Your task to perform on an android device: Empty the shopping cart on costco. Image 0: 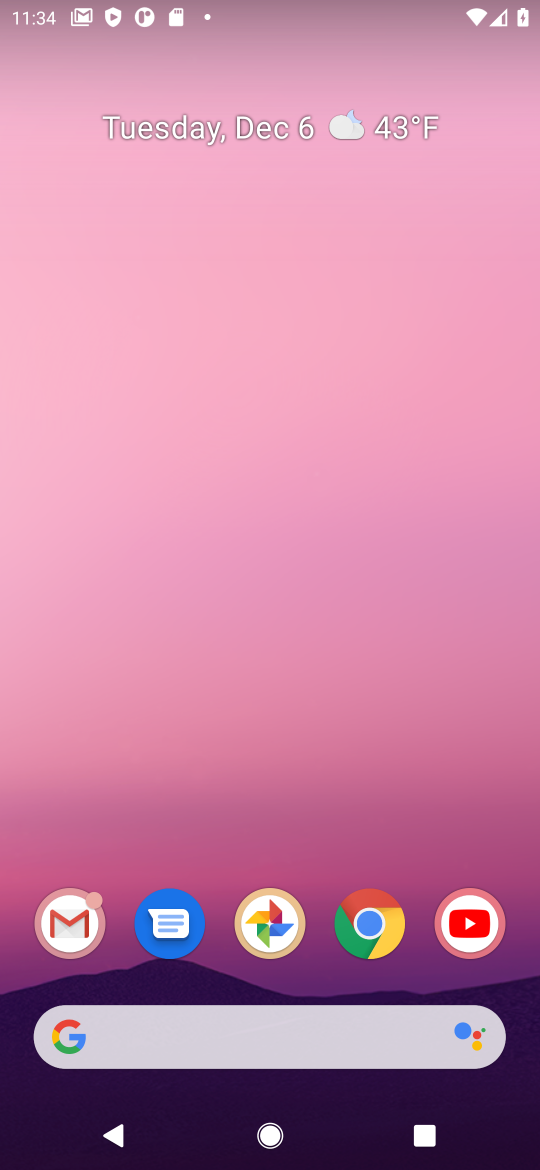
Step 0: click (373, 919)
Your task to perform on an android device: Empty the shopping cart on costco. Image 1: 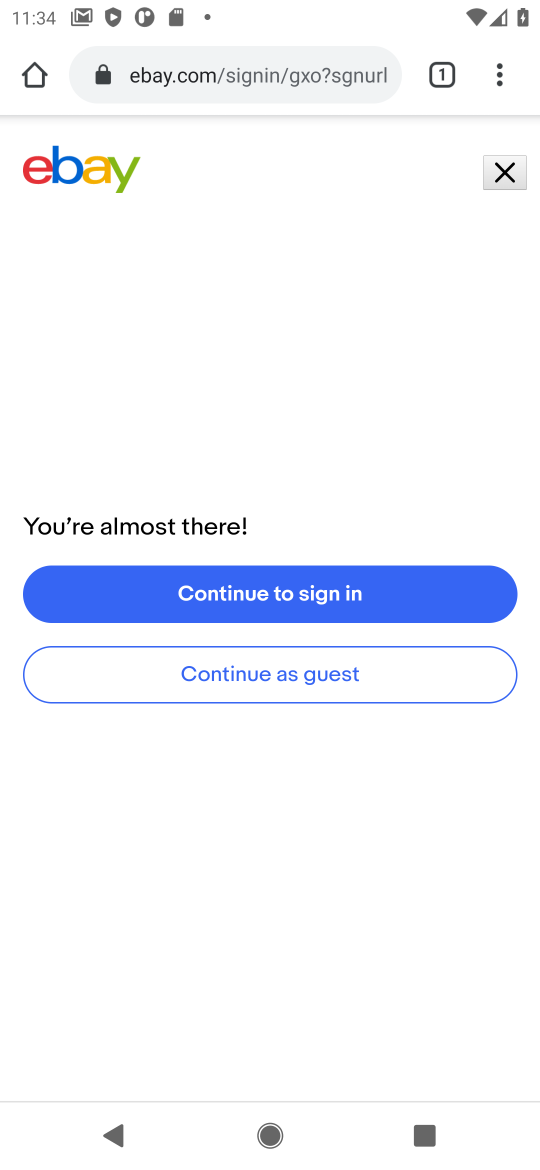
Step 1: click (300, 55)
Your task to perform on an android device: Empty the shopping cart on costco. Image 2: 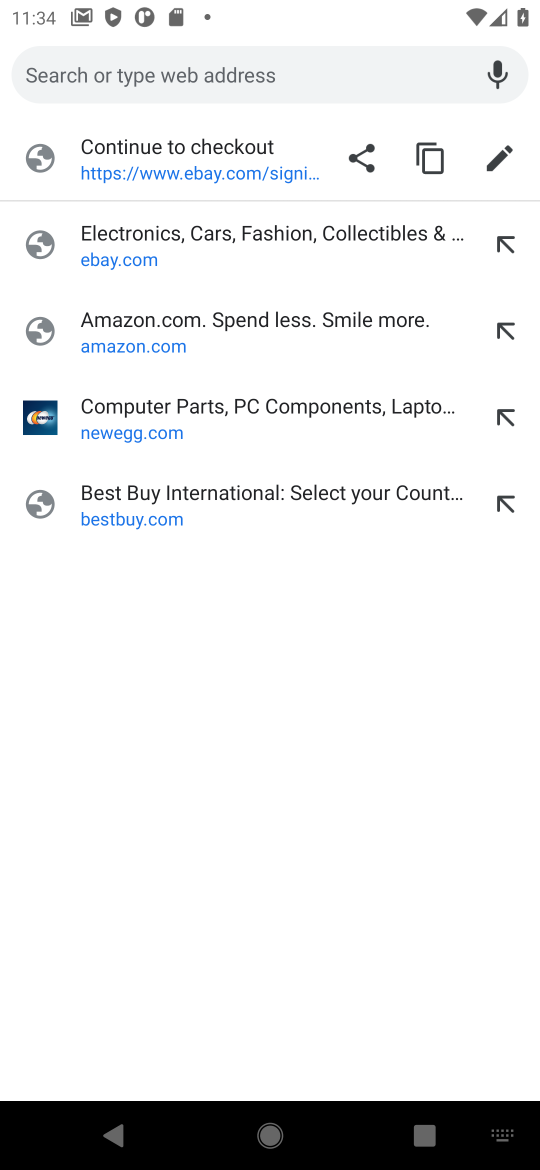
Step 2: type "COSTCO"
Your task to perform on an android device: Empty the shopping cart on costco. Image 3: 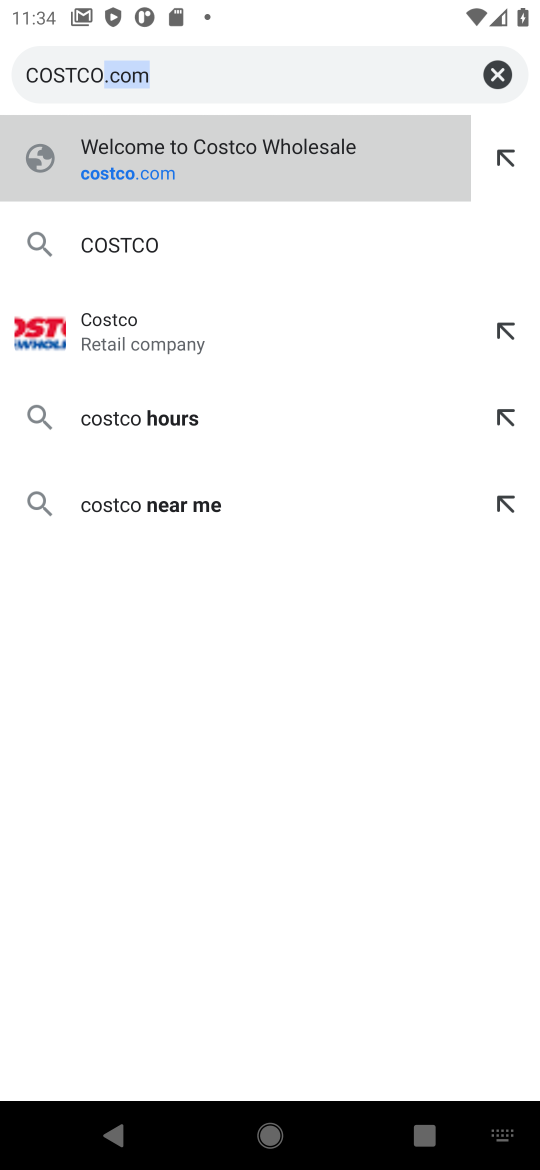
Step 3: click (122, 171)
Your task to perform on an android device: Empty the shopping cart on costco. Image 4: 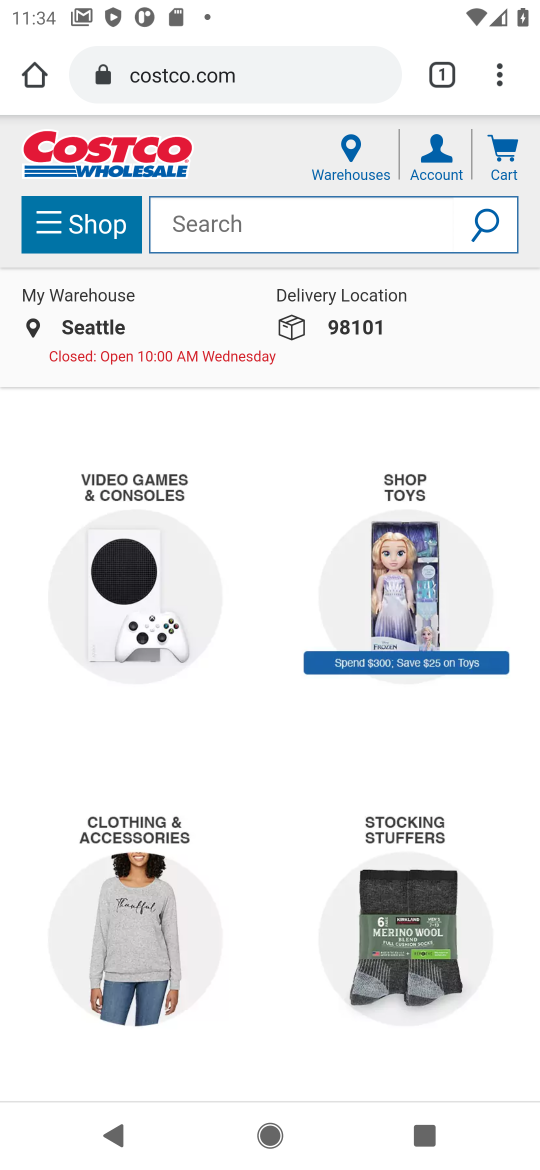
Step 4: click (501, 161)
Your task to perform on an android device: Empty the shopping cart on costco. Image 5: 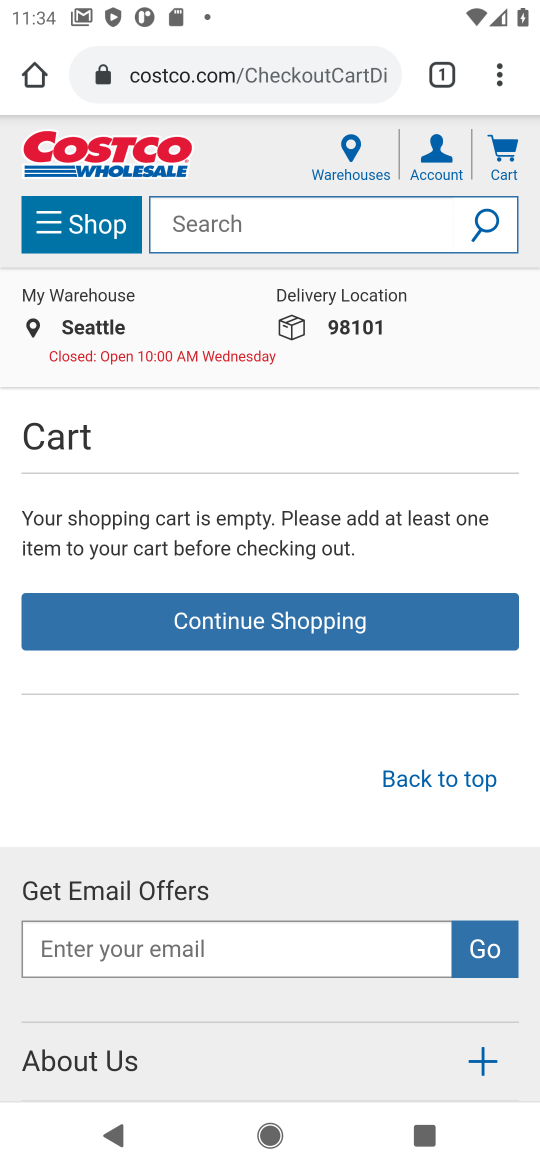
Step 5: task complete